Your task to perform on an android device: toggle airplane mode Image 0: 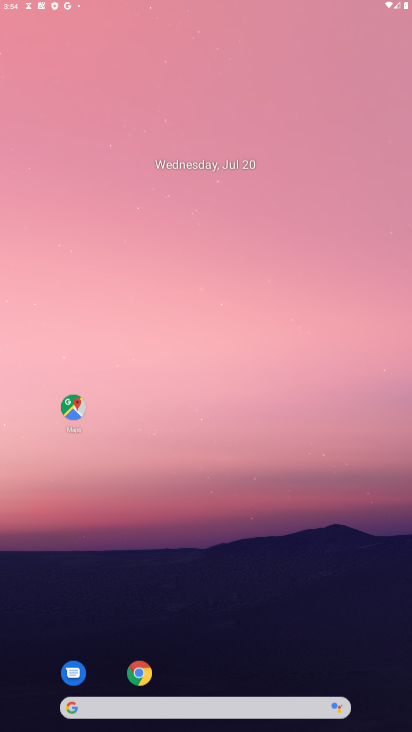
Step 0: press home button
Your task to perform on an android device: toggle airplane mode Image 1: 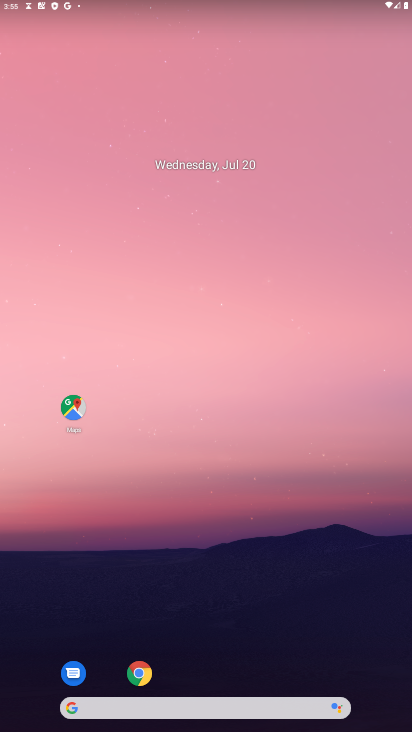
Step 1: drag from (221, 17) to (405, 712)
Your task to perform on an android device: toggle airplane mode Image 2: 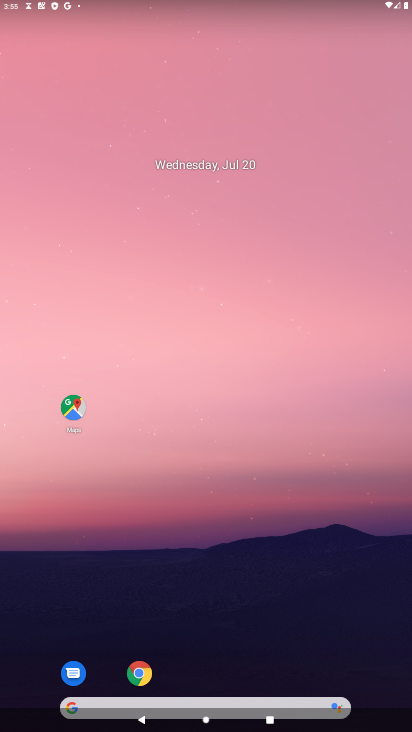
Step 2: drag from (225, 93) to (292, 610)
Your task to perform on an android device: toggle airplane mode Image 3: 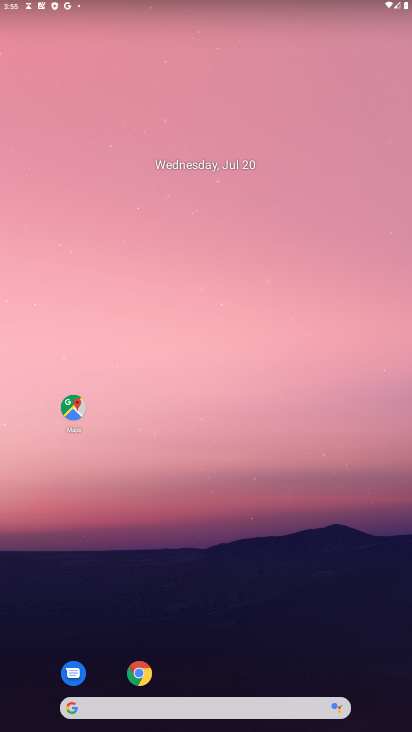
Step 3: drag from (214, 147) to (305, 650)
Your task to perform on an android device: toggle airplane mode Image 4: 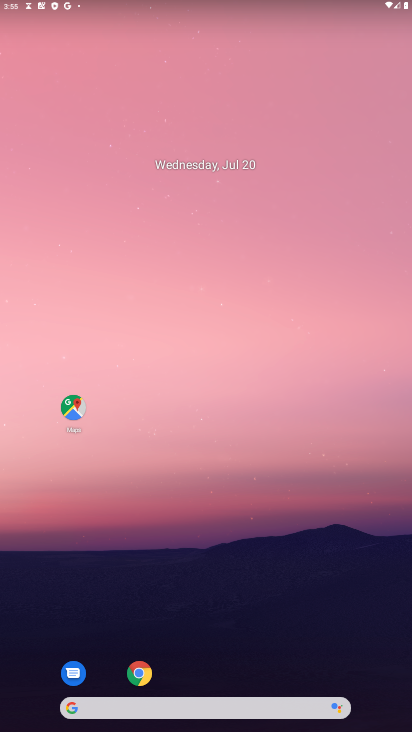
Step 4: drag from (189, 0) to (267, 660)
Your task to perform on an android device: toggle airplane mode Image 5: 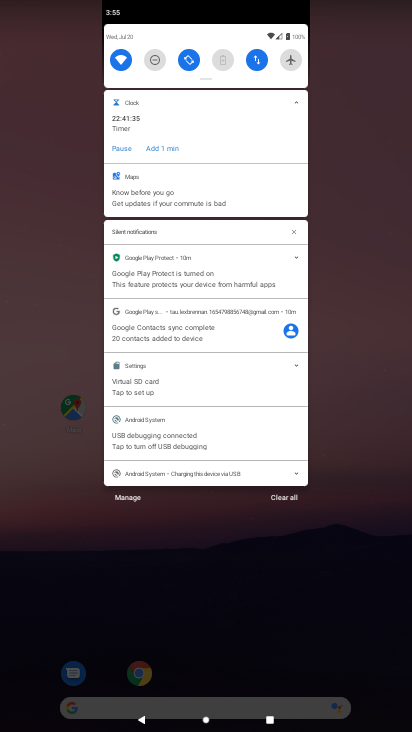
Step 5: click (288, 65)
Your task to perform on an android device: toggle airplane mode Image 6: 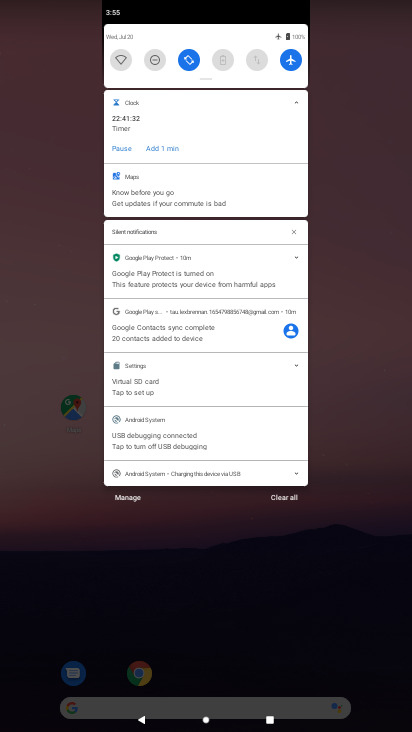
Step 6: task complete